Your task to perform on an android device: Go to Google maps Image 0: 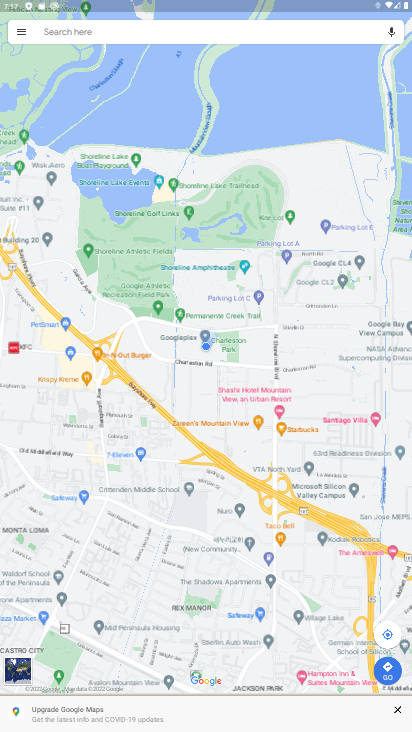
Step 0: press home button
Your task to perform on an android device: Go to Google maps Image 1: 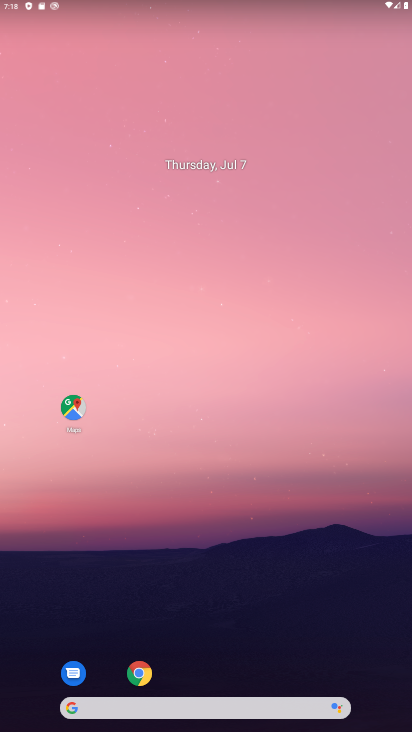
Step 1: click (69, 408)
Your task to perform on an android device: Go to Google maps Image 2: 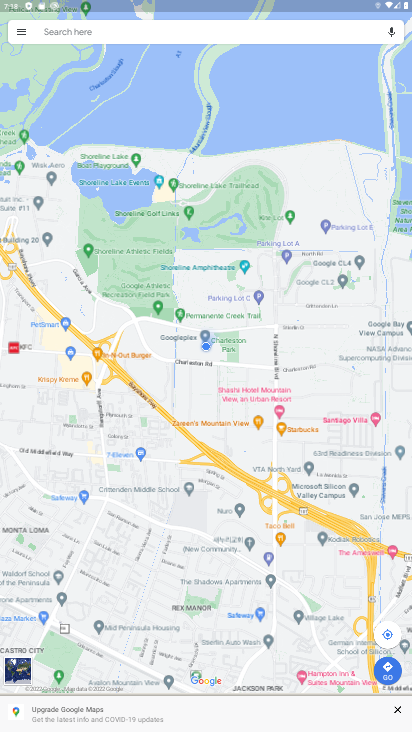
Step 2: task complete